Your task to perform on an android device: Check the news Image 0: 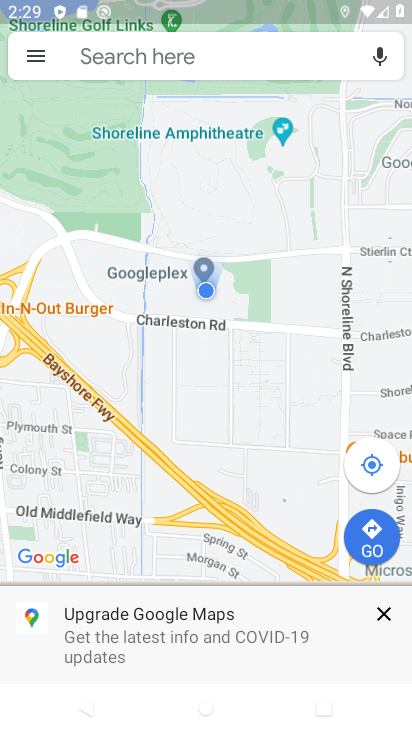
Step 0: press home button
Your task to perform on an android device: Check the news Image 1: 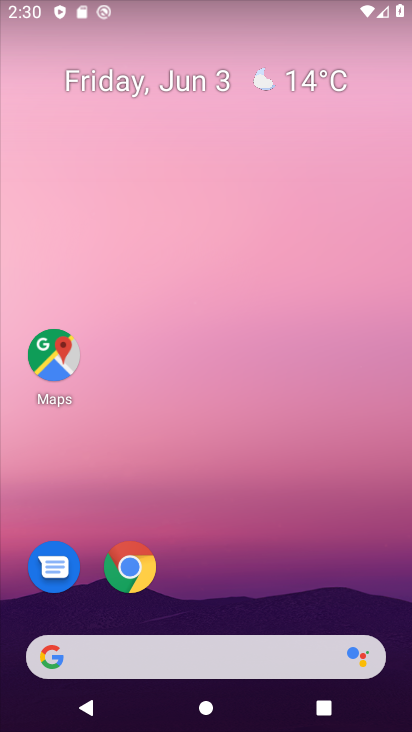
Step 1: drag from (226, 694) to (316, 121)
Your task to perform on an android device: Check the news Image 2: 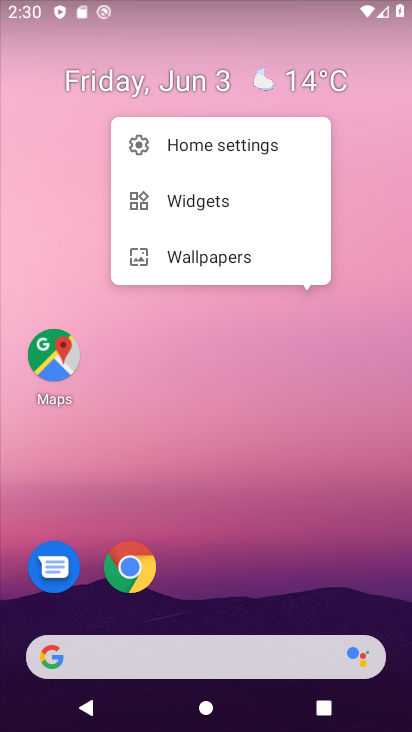
Step 2: click (293, 471)
Your task to perform on an android device: Check the news Image 3: 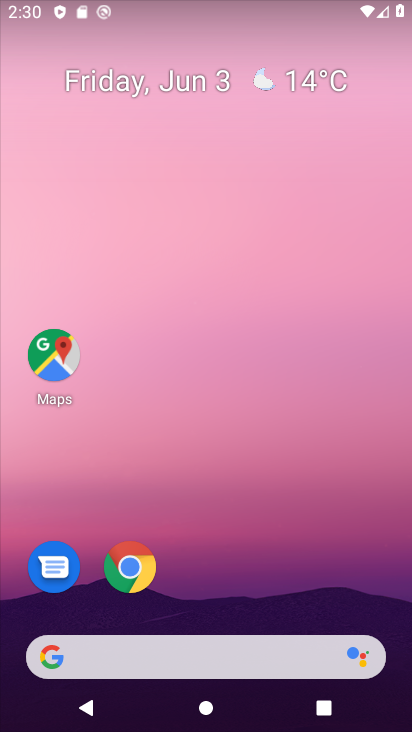
Step 3: drag from (283, 676) to (327, 185)
Your task to perform on an android device: Check the news Image 4: 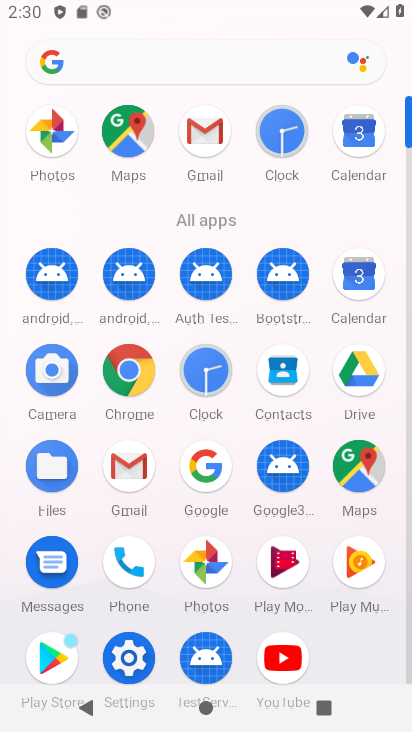
Step 4: click (160, 58)
Your task to perform on an android device: Check the news Image 5: 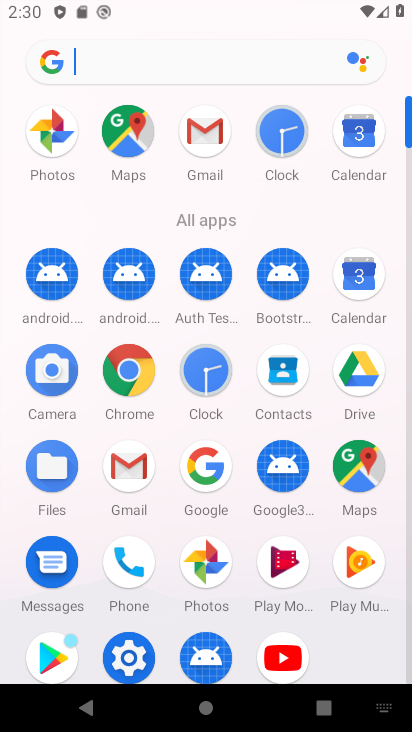
Step 5: click (154, 60)
Your task to perform on an android device: Check the news Image 6: 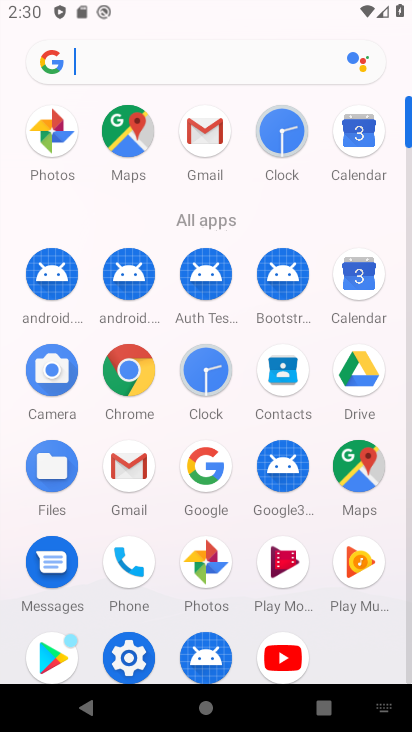
Step 6: drag from (379, 708) to (334, 564)
Your task to perform on an android device: Check the news Image 7: 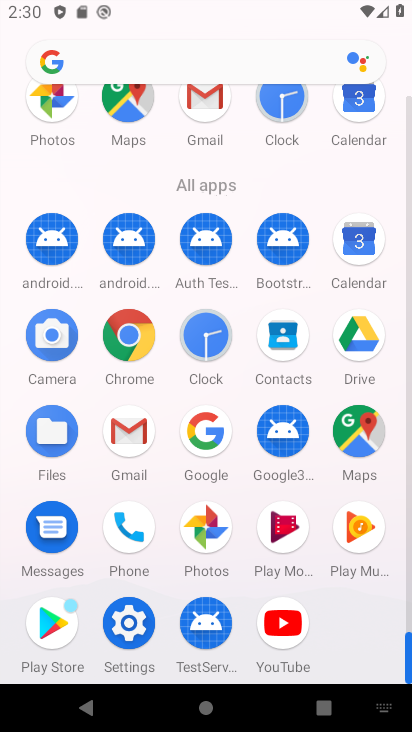
Step 7: click (386, 707)
Your task to perform on an android device: Check the news Image 8: 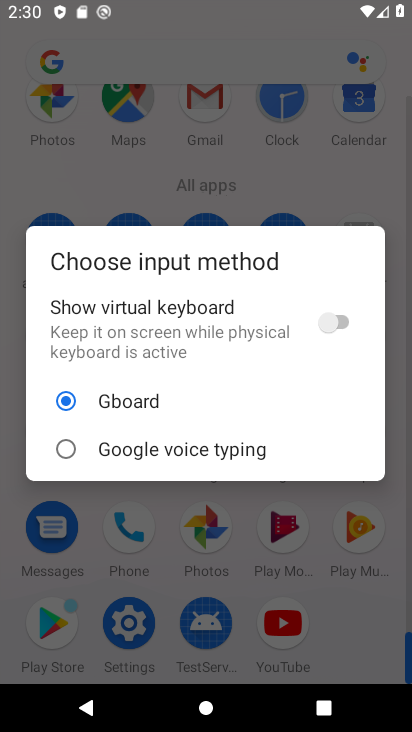
Step 8: click (339, 319)
Your task to perform on an android device: Check the news Image 9: 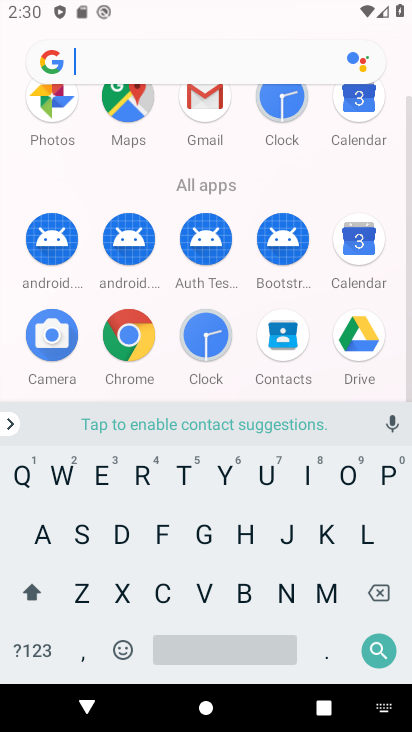
Step 9: click (119, 58)
Your task to perform on an android device: Check the news Image 10: 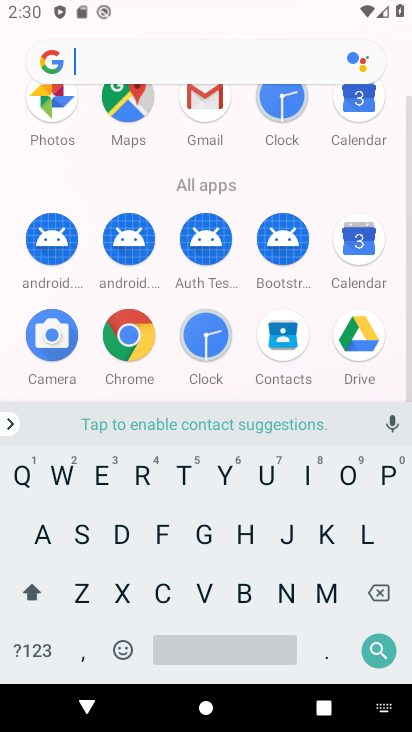
Step 10: click (286, 591)
Your task to perform on an android device: Check the news Image 11: 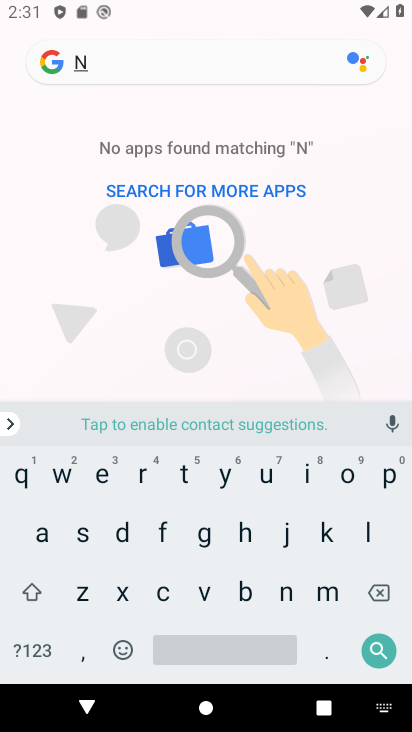
Step 11: click (105, 473)
Your task to perform on an android device: Check the news Image 12: 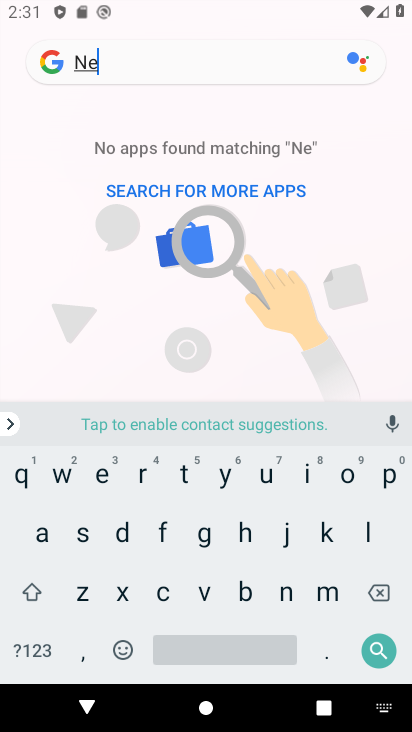
Step 12: click (47, 468)
Your task to perform on an android device: Check the news Image 13: 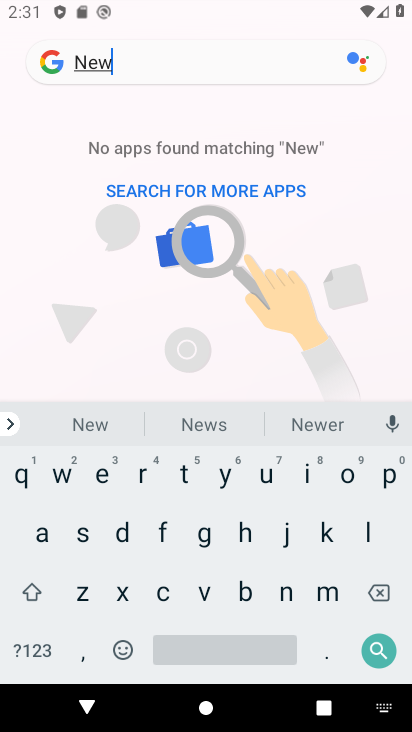
Step 13: click (85, 538)
Your task to perform on an android device: Check the news Image 14: 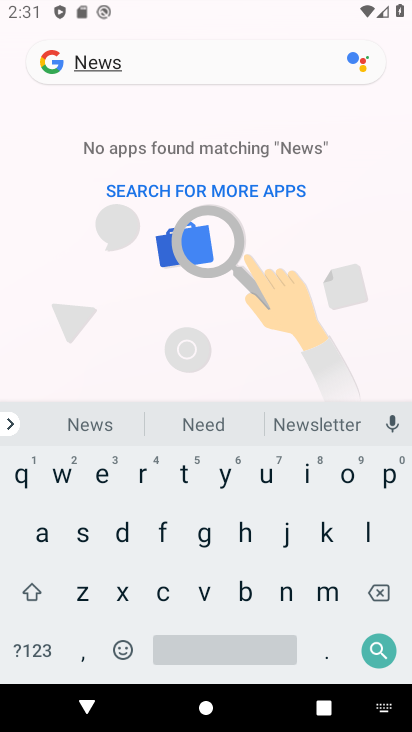
Step 14: click (382, 654)
Your task to perform on an android device: Check the news Image 15: 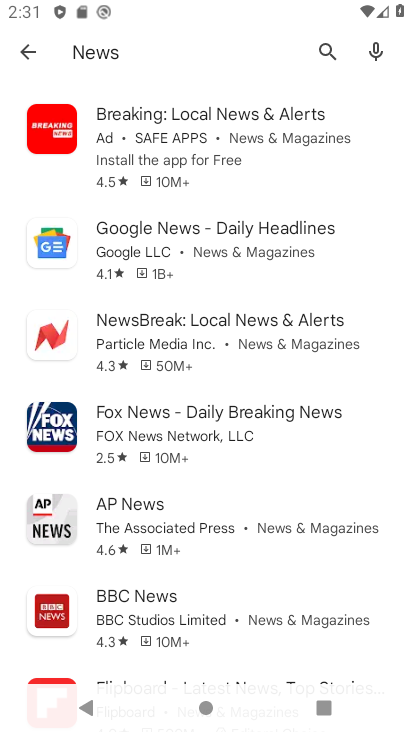
Step 15: task complete